Your task to perform on an android device: turn off sleep mode Image 0: 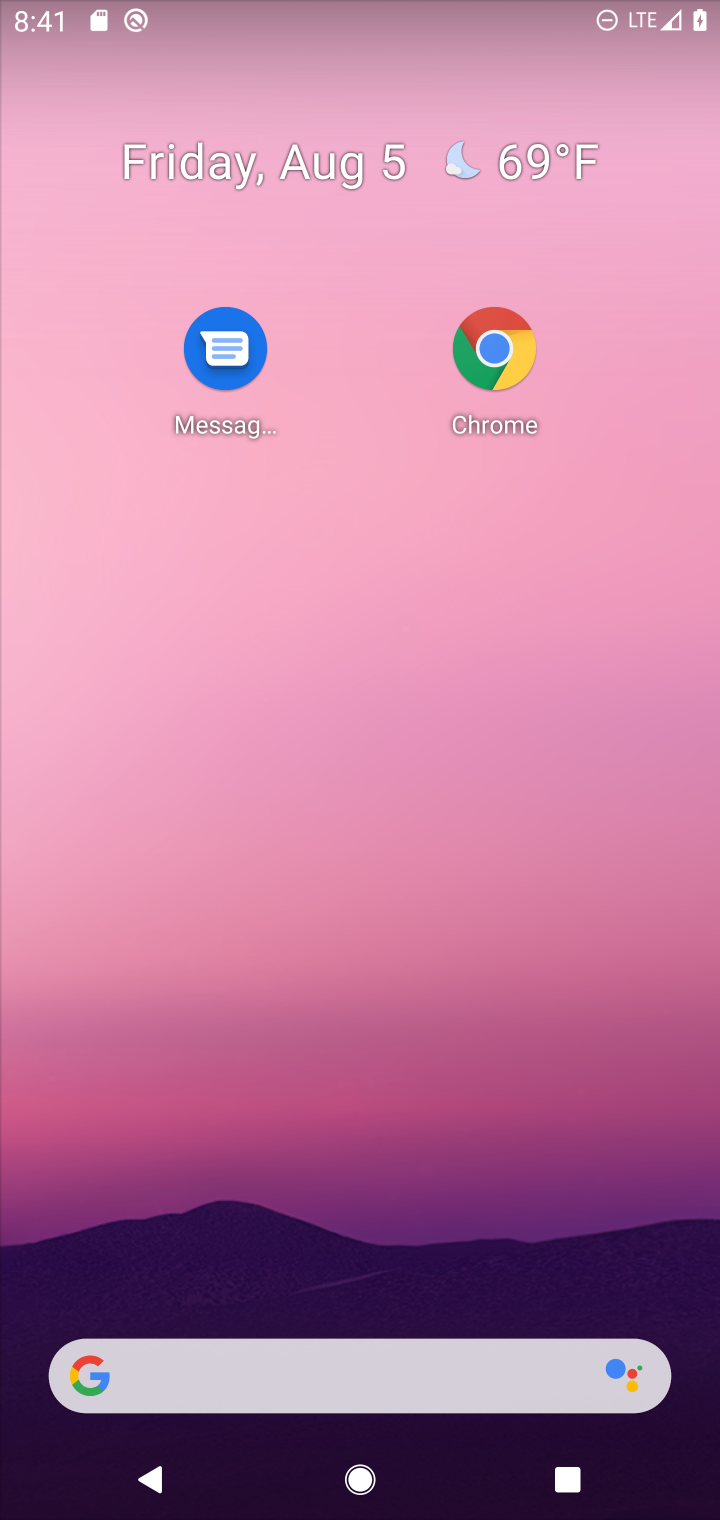
Step 0: press home button
Your task to perform on an android device: turn off sleep mode Image 1: 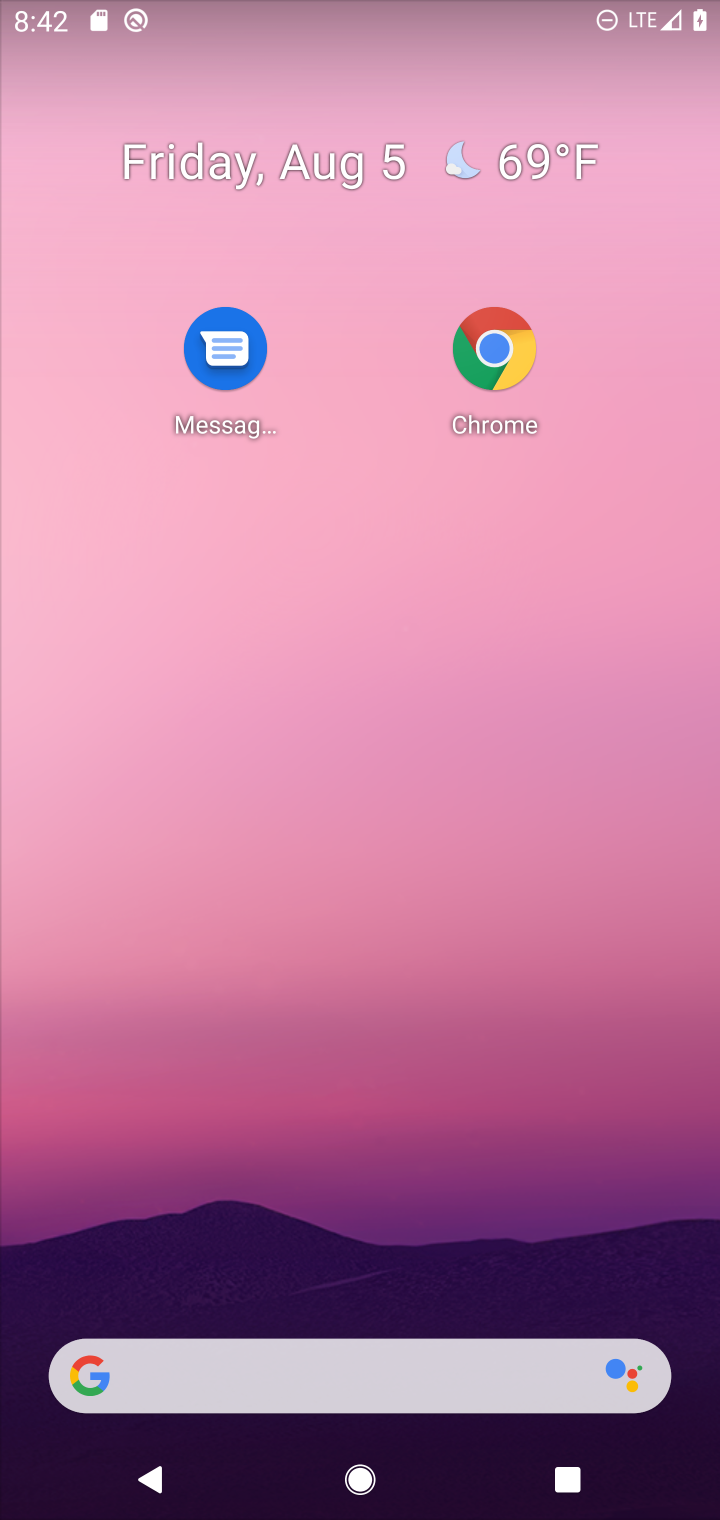
Step 1: drag from (471, 1412) to (357, 620)
Your task to perform on an android device: turn off sleep mode Image 2: 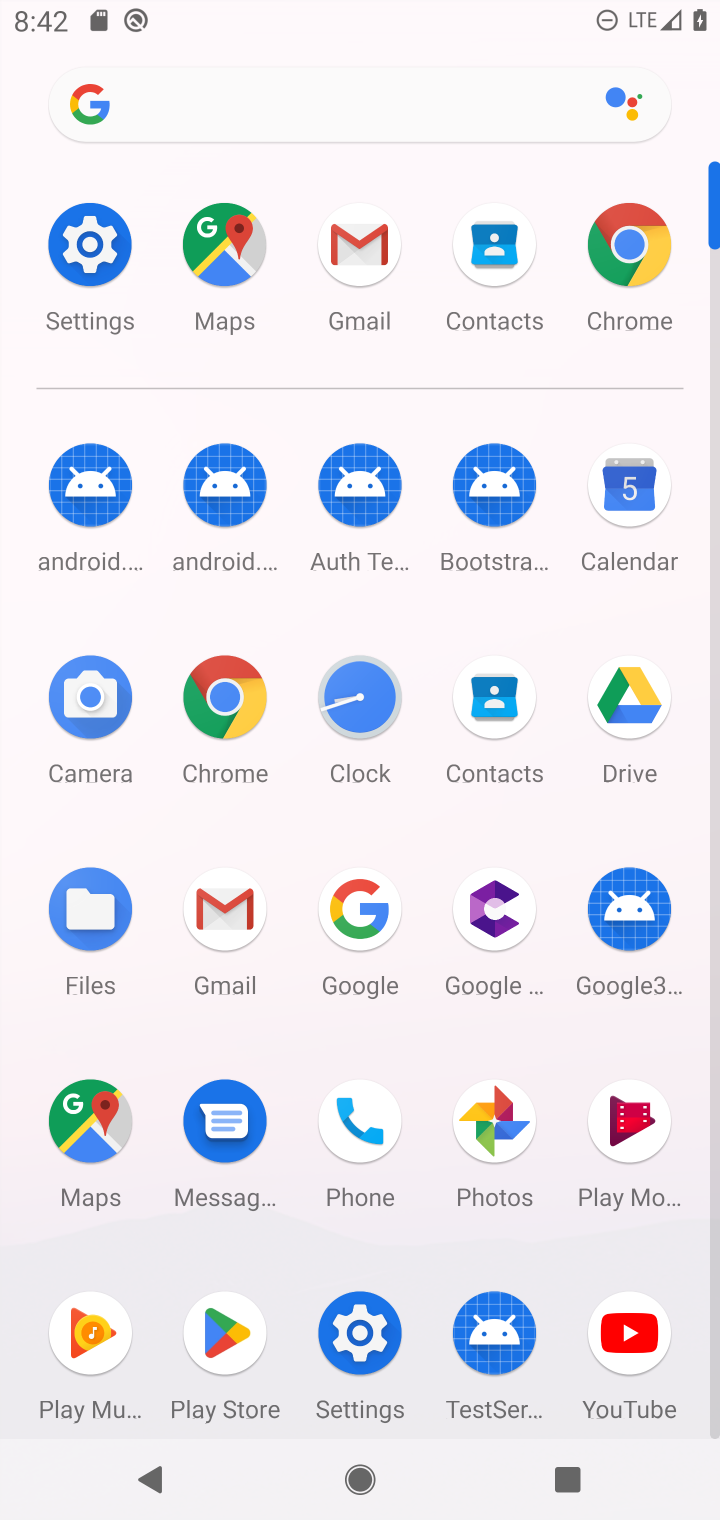
Step 2: click (76, 264)
Your task to perform on an android device: turn off sleep mode Image 3: 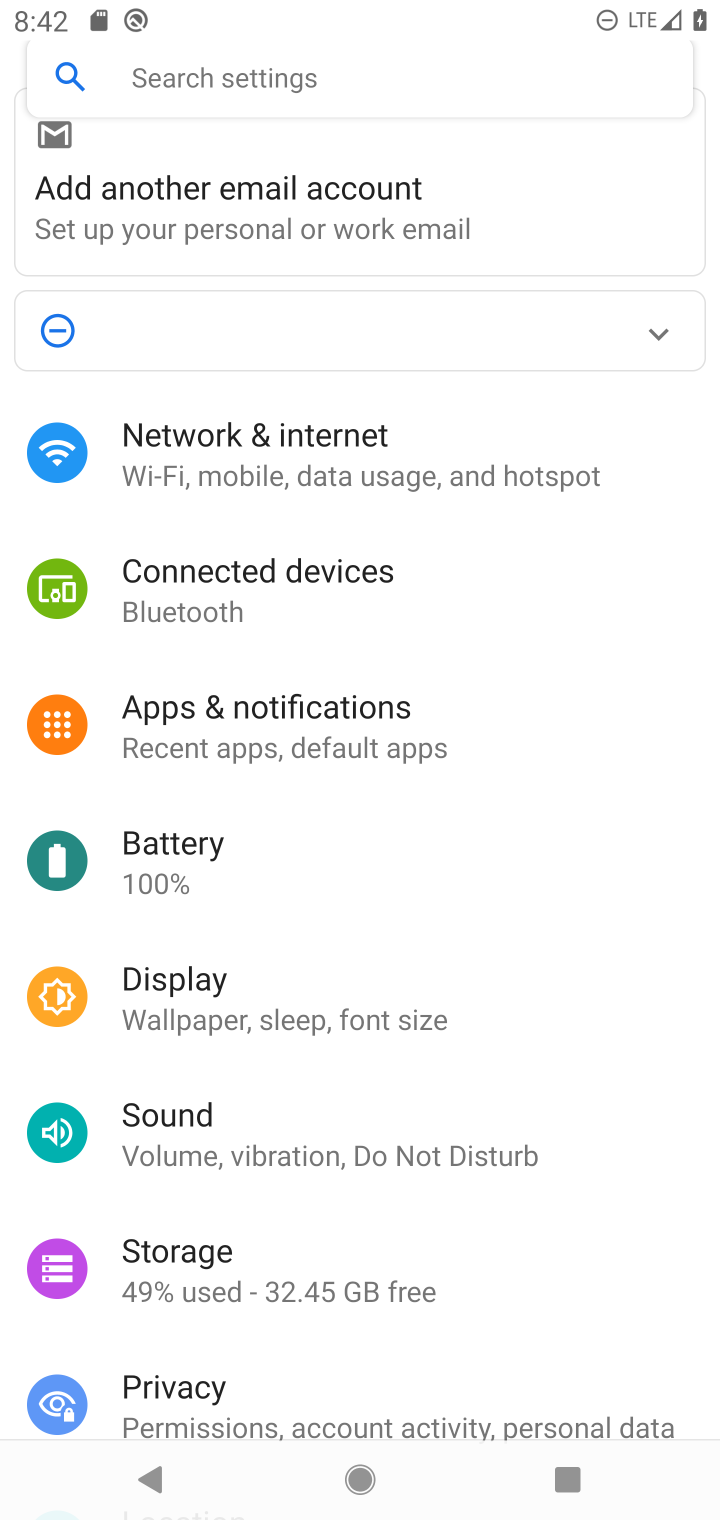
Step 3: click (225, 95)
Your task to perform on an android device: turn off sleep mode Image 4: 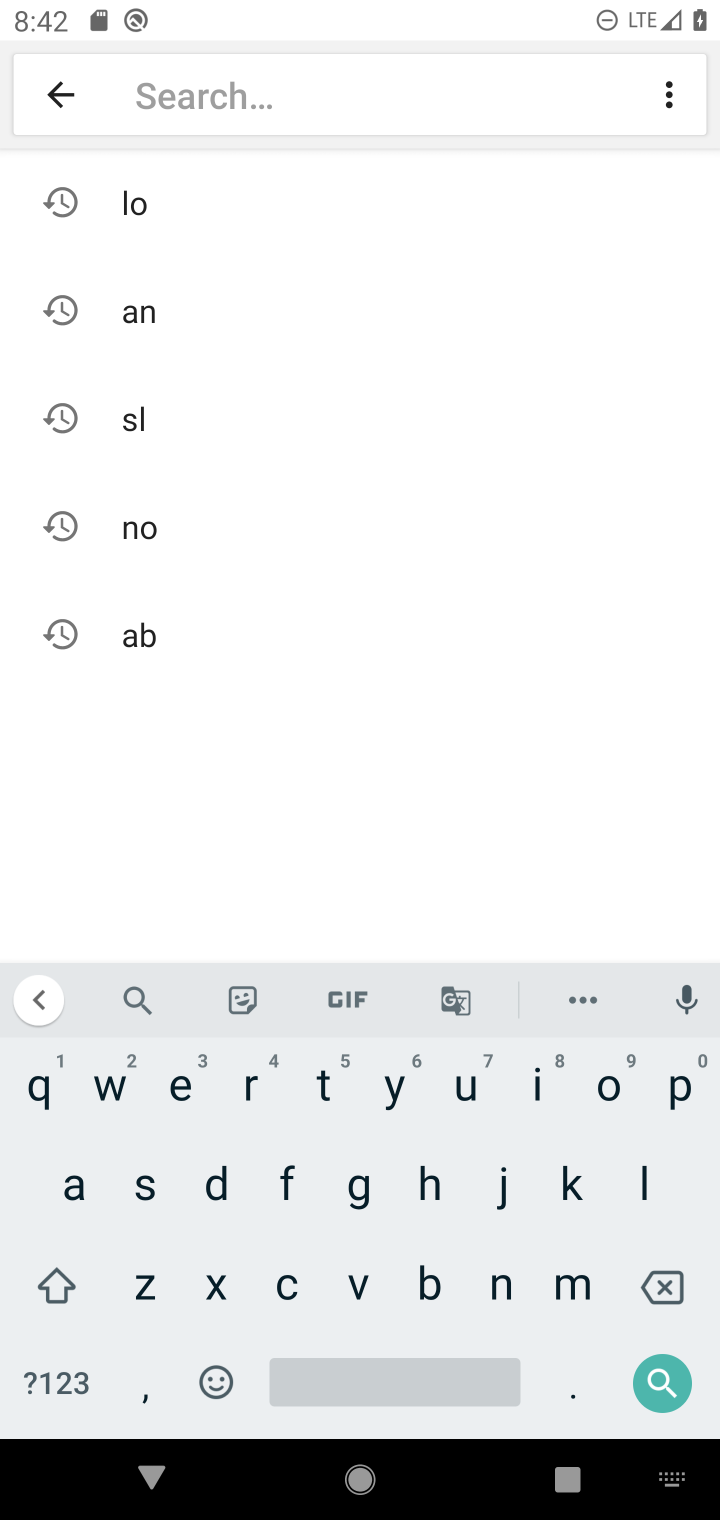
Step 4: click (137, 1183)
Your task to perform on an android device: turn off sleep mode Image 5: 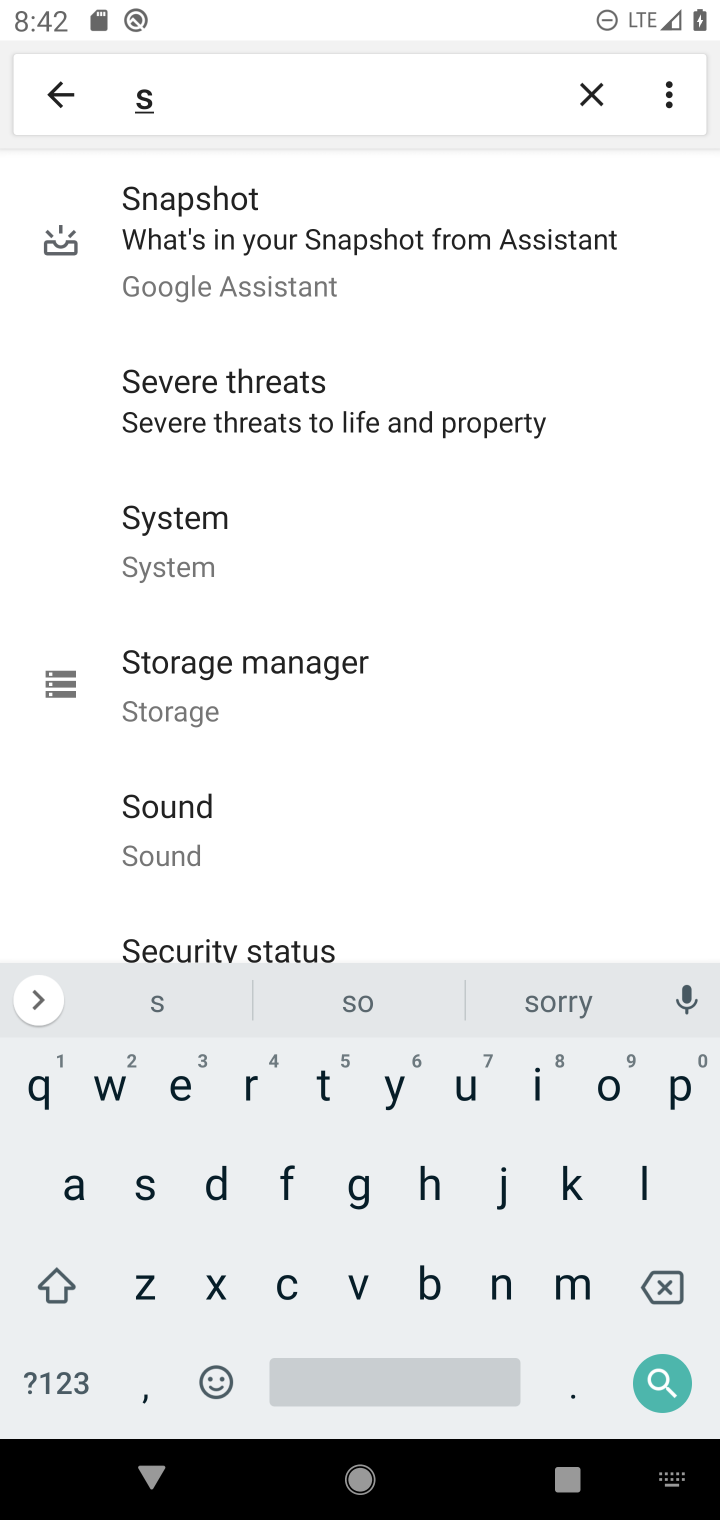
Step 5: click (636, 1174)
Your task to perform on an android device: turn off sleep mode Image 6: 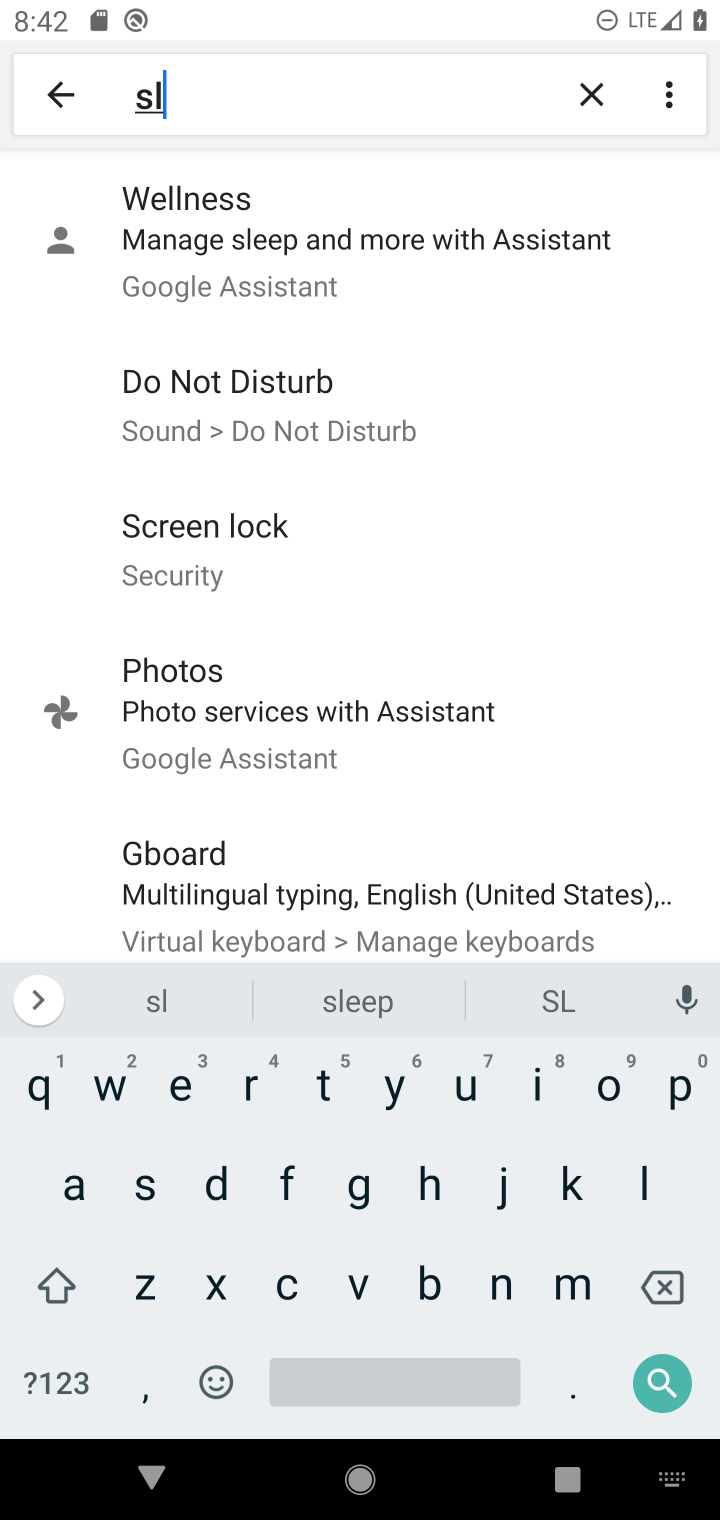
Step 6: click (206, 412)
Your task to perform on an android device: turn off sleep mode Image 7: 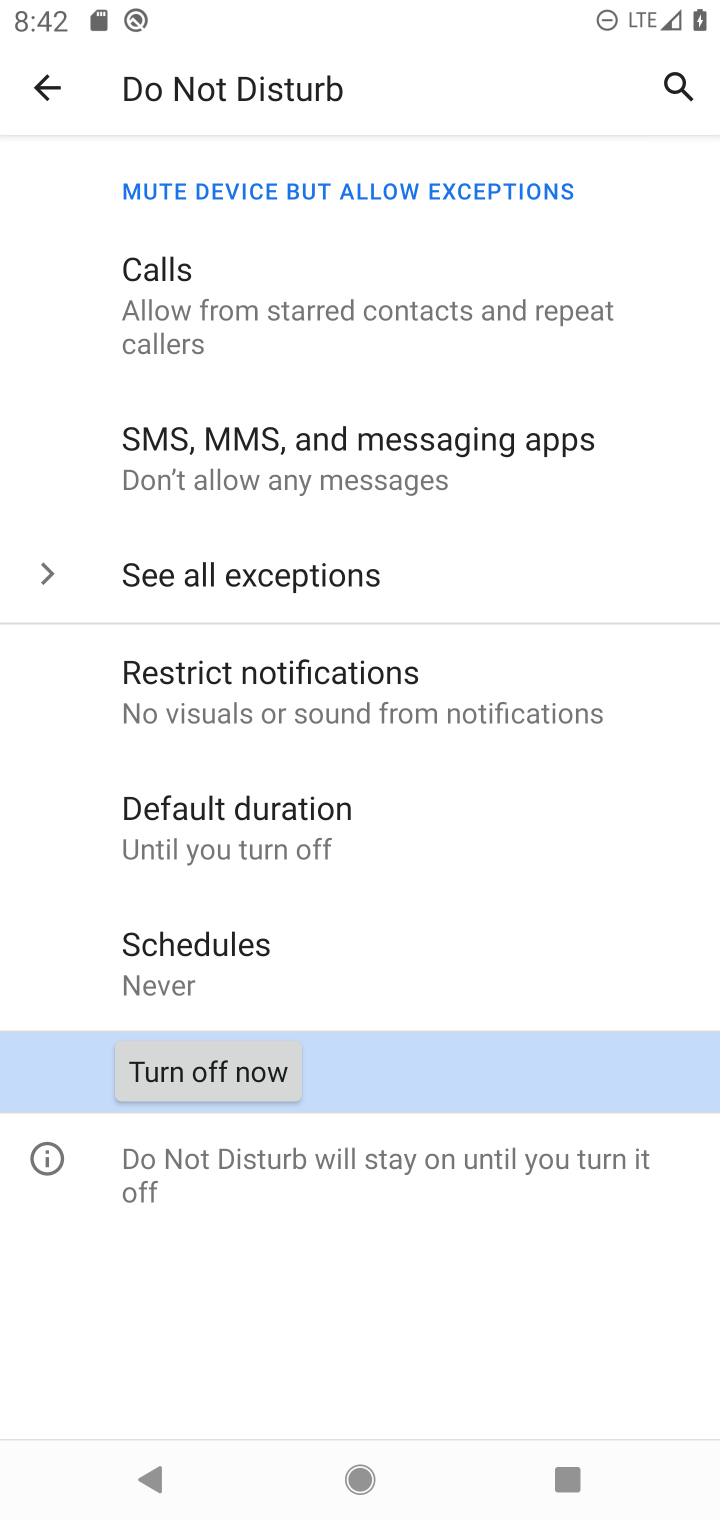
Step 7: click (165, 1057)
Your task to perform on an android device: turn off sleep mode Image 8: 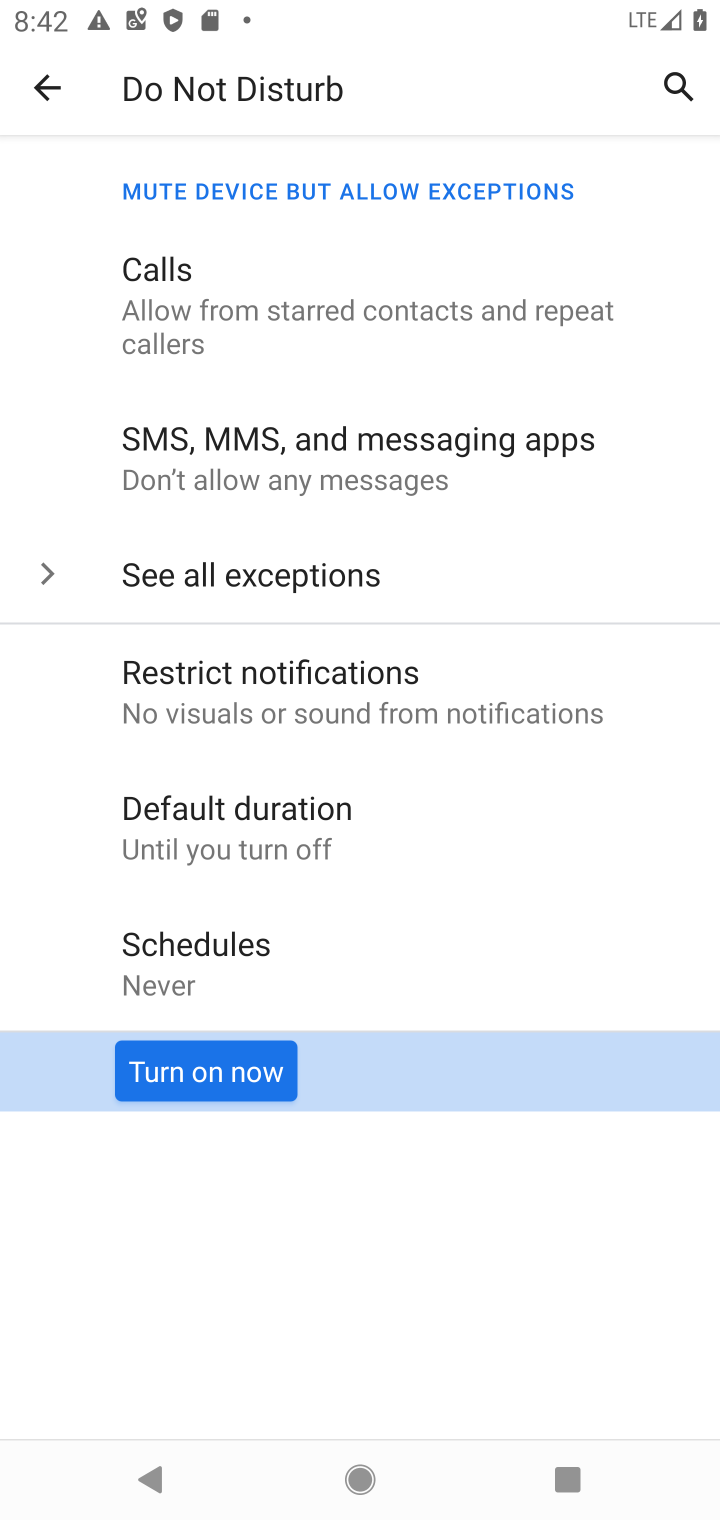
Step 8: click (163, 1080)
Your task to perform on an android device: turn off sleep mode Image 9: 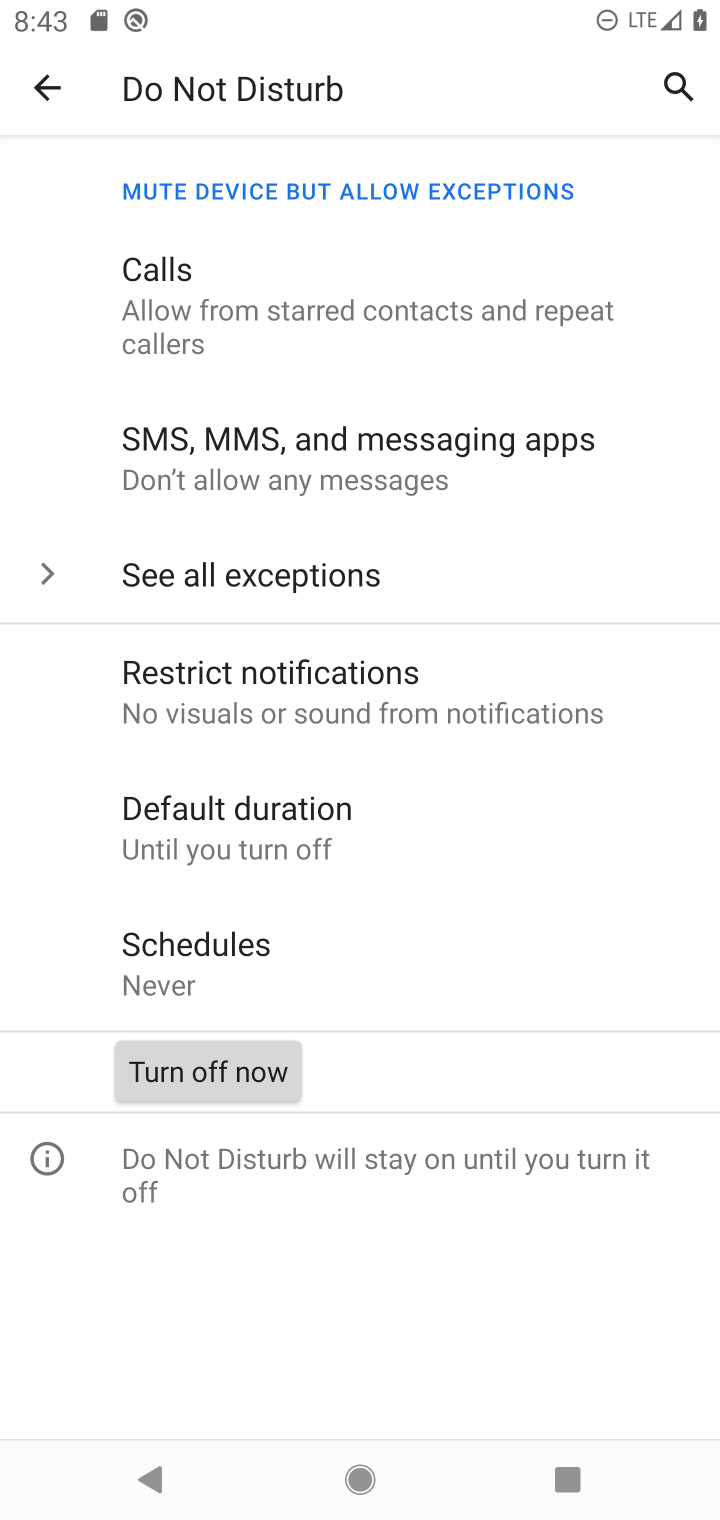
Step 9: task complete